Your task to perform on an android device: turn on data saver in the chrome app Image 0: 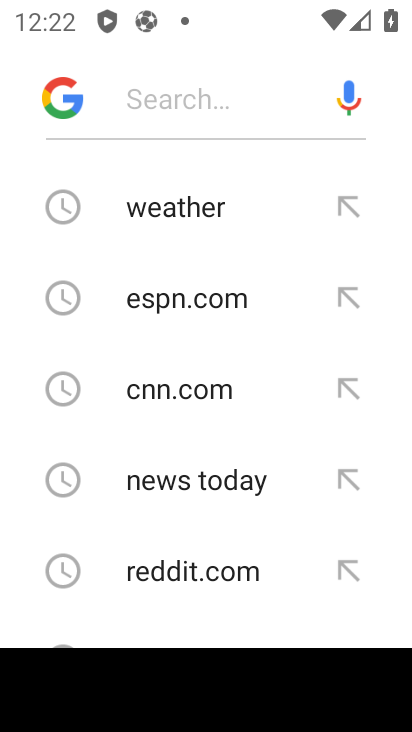
Step 0: press home button
Your task to perform on an android device: turn on data saver in the chrome app Image 1: 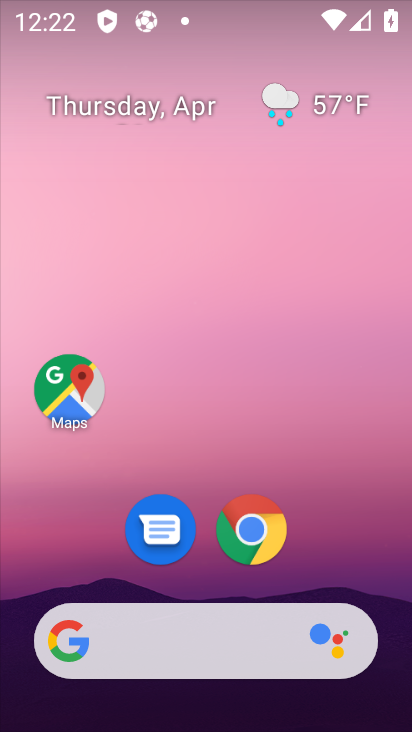
Step 1: click (275, 542)
Your task to perform on an android device: turn on data saver in the chrome app Image 2: 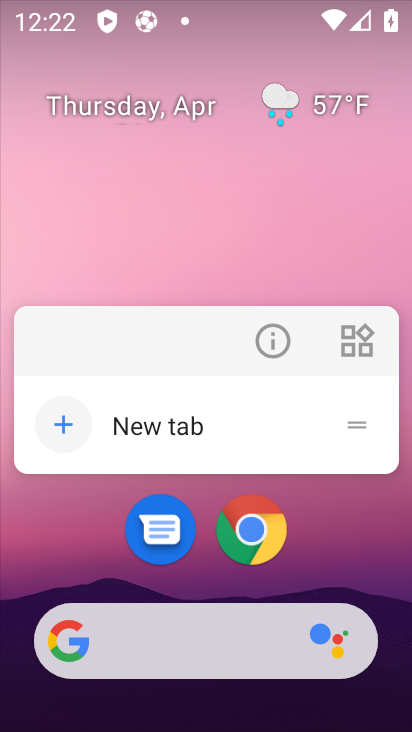
Step 2: click (275, 542)
Your task to perform on an android device: turn on data saver in the chrome app Image 3: 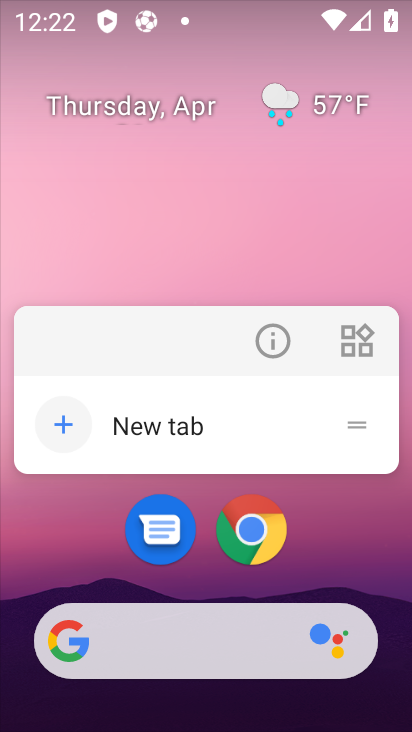
Step 3: click (275, 542)
Your task to perform on an android device: turn on data saver in the chrome app Image 4: 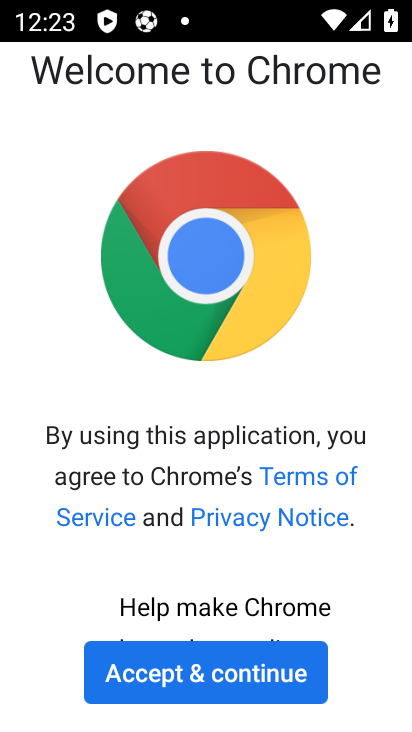
Step 4: click (209, 676)
Your task to perform on an android device: turn on data saver in the chrome app Image 5: 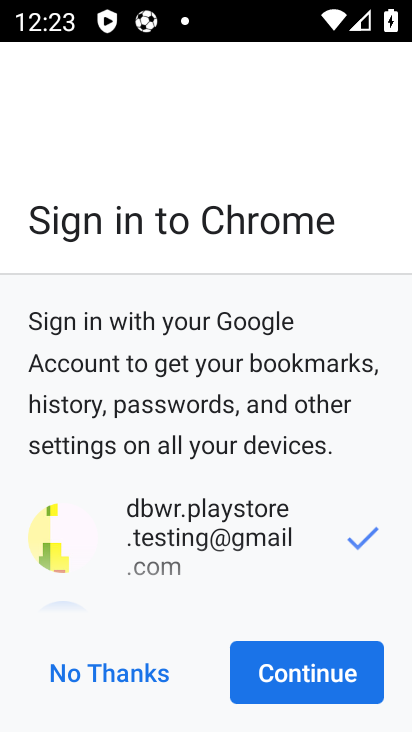
Step 5: click (288, 692)
Your task to perform on an android device: turn on data saver in the chrome app Image 6: 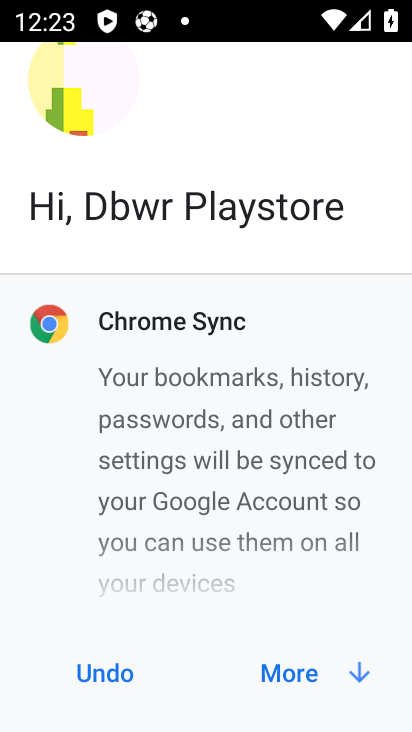
Step 6: click (309, 687)
Your task to perform on an android device: turn on data saver in the chrome app Image 7: 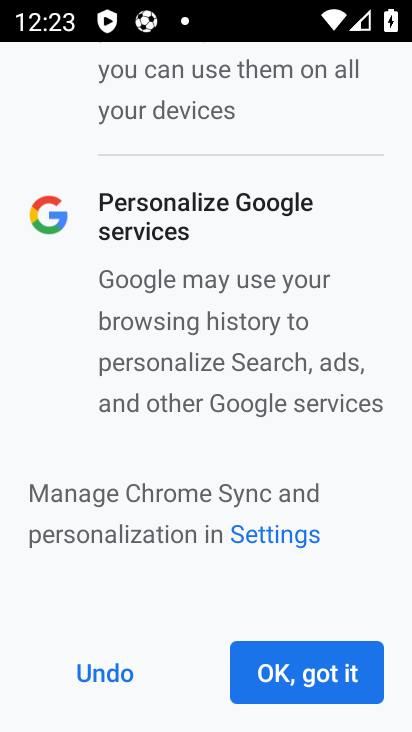
Step 7: click (309, 687)
Your task to perform on an android device: turn on data saver in the chrome app Image 8: 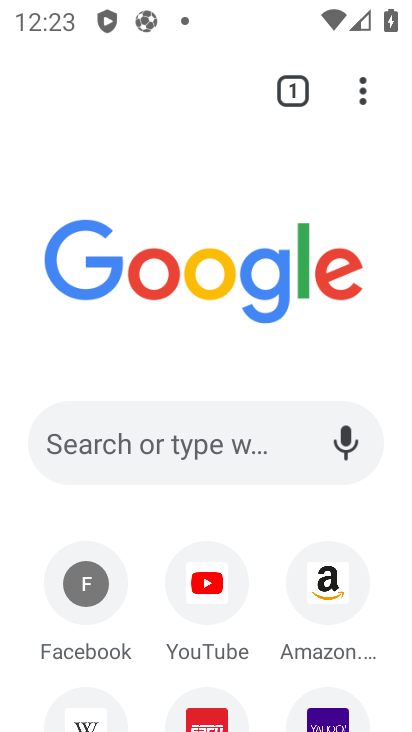
Step 8: drag from (361, 78) to (123, 563)
Your task to perform on an android device: turn on data saver in the chrome app Image 9: 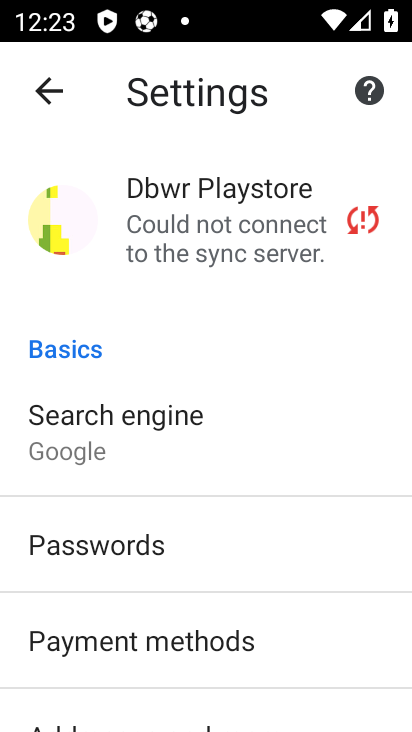
Step 9: drag from (173, 619) to (189, 148)
Your task to perform on an android device: turn on data saver in the chrome app Image 10: 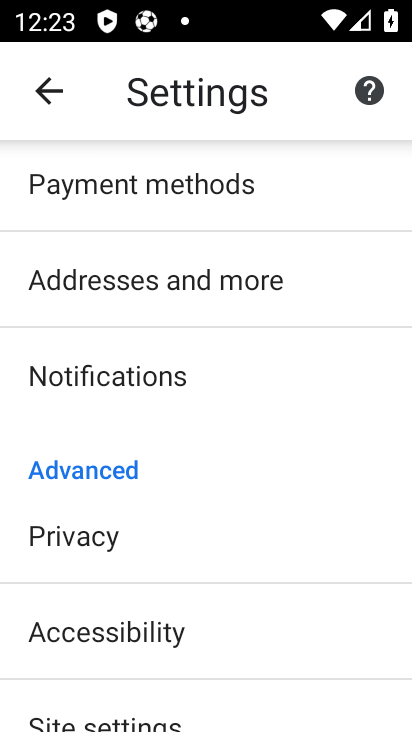
Step 10: drag from (131, 654) to (189, 125)
Your task to perform on an android device: turn on data saver in the chrome app Image 11: 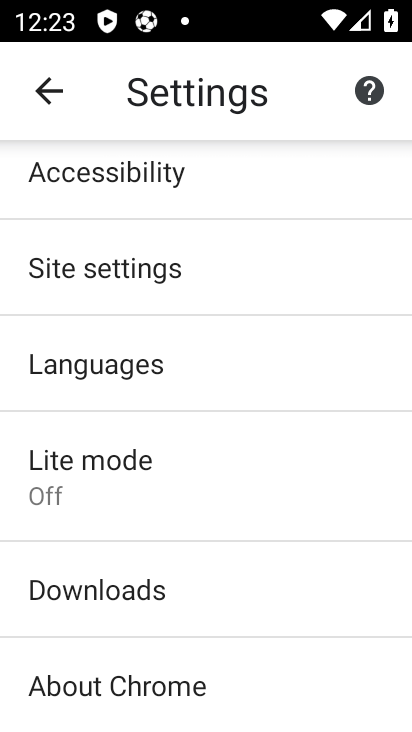
Step 11: click (121, 494)
Your task to perform on an android device: turn on data saver in the chrome app Image 12: 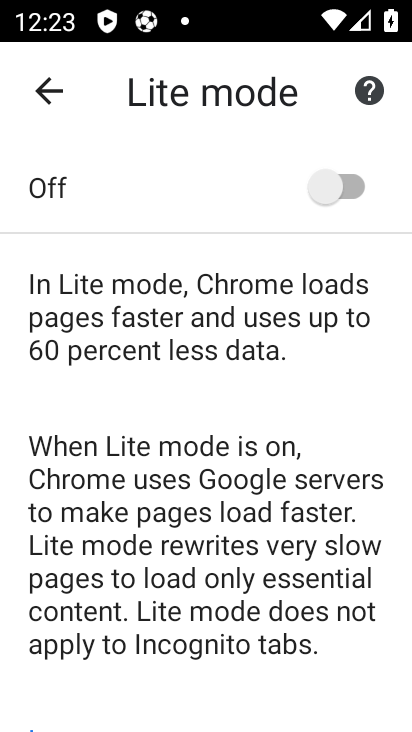
Step 12: click (322, 192)
Your task to perform on an android device: turn on data saver in the chrome app Image 13: 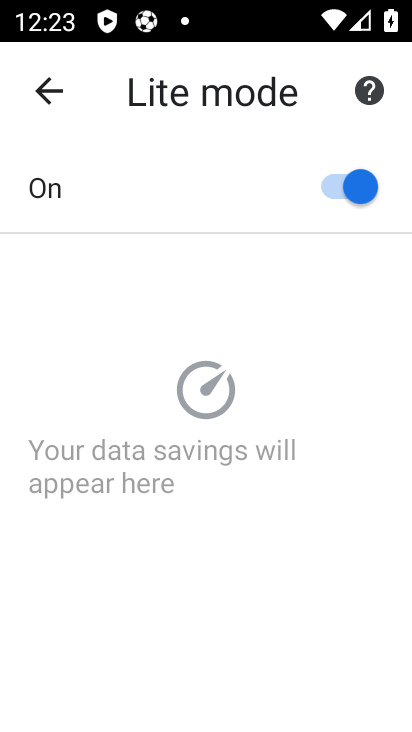
Step 13: task complete